Your task to perform on an android device: set default search engine in the chrome app Image 0: 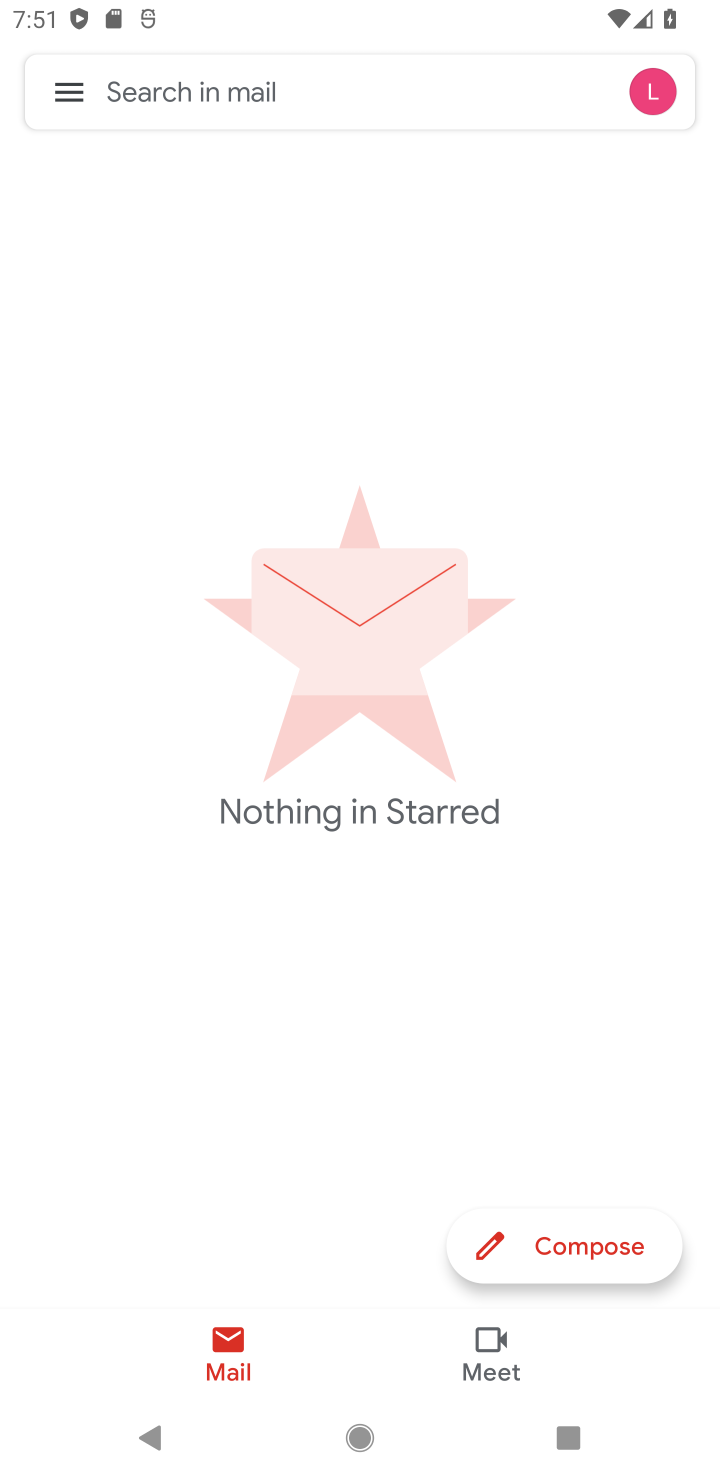
Step 0: press home button
Your task to perform on an android device: set default search engine in the chrome app Image 1: 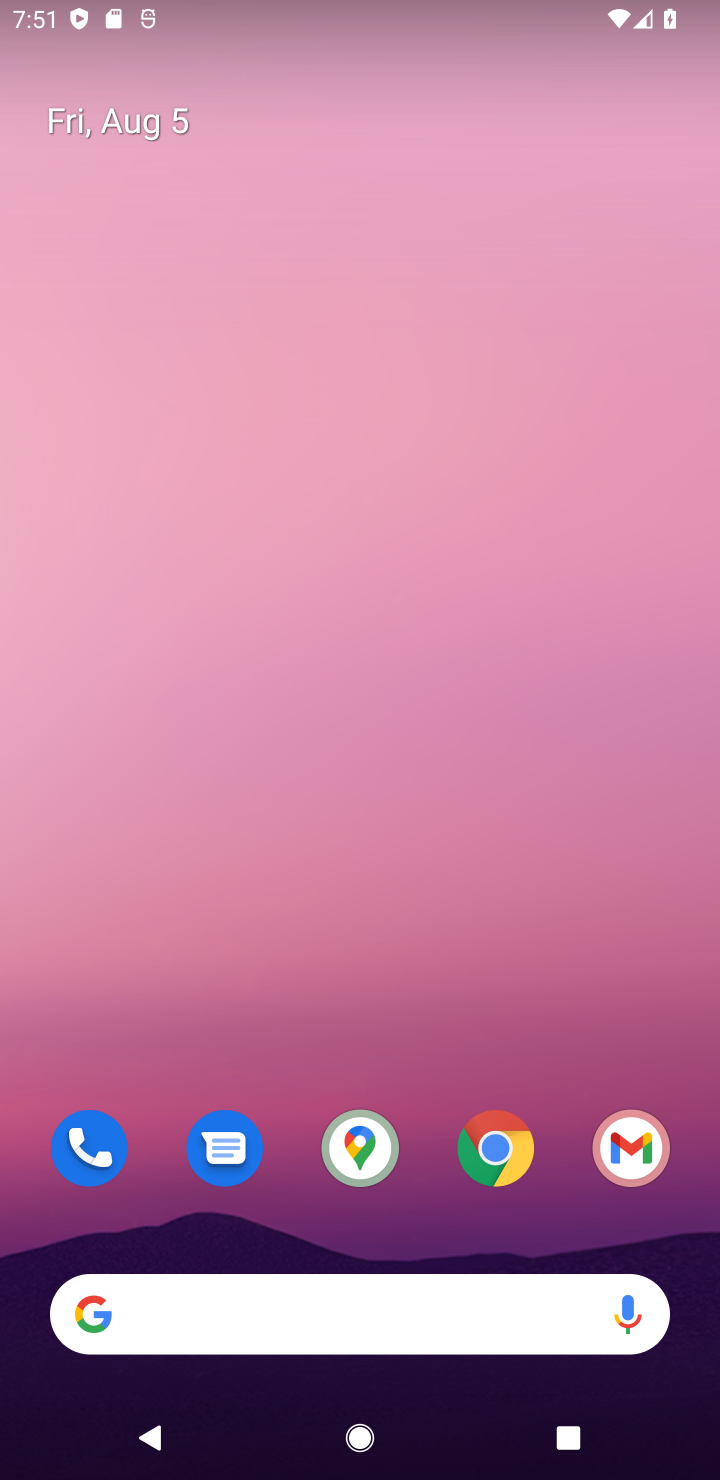
Step 1: click (528, 1138)
Your task to perform on an android device: set default search engine in the chrome app Image 2: 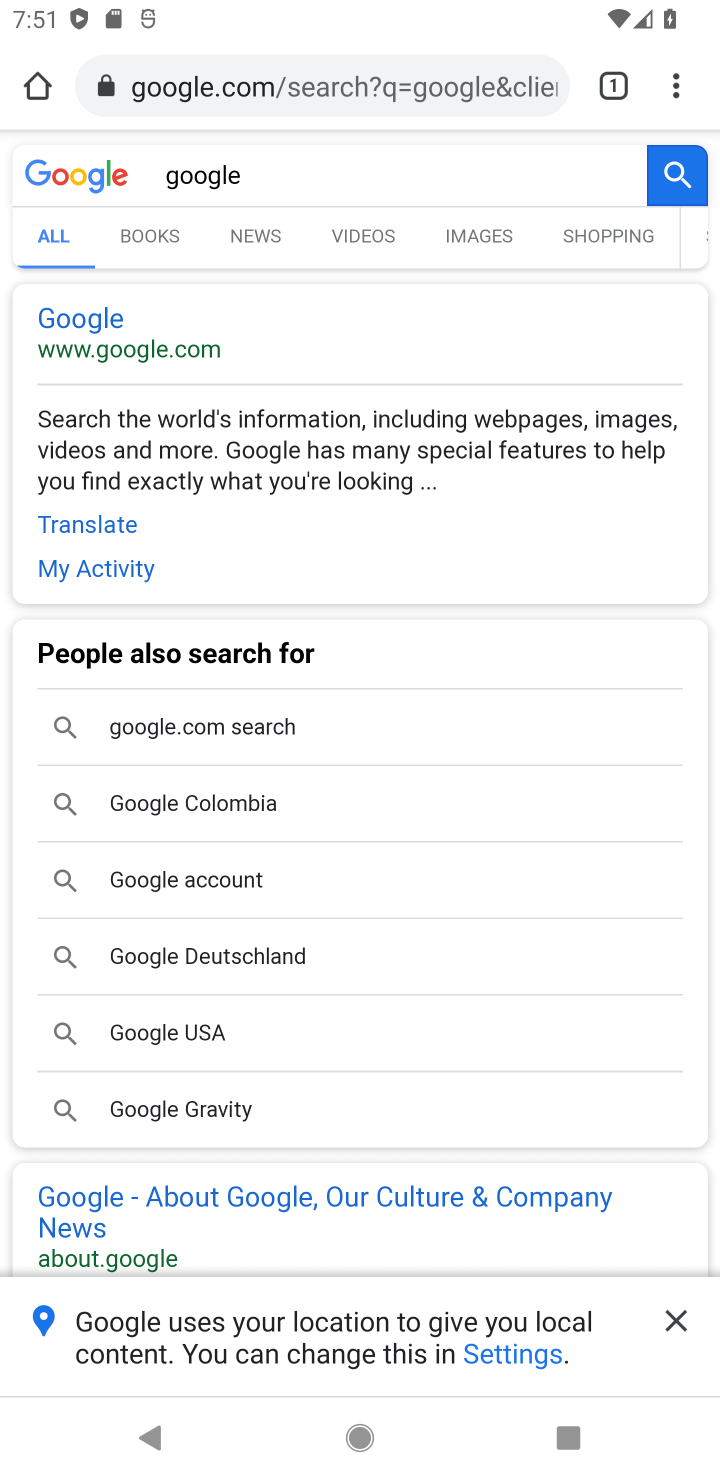
Step 2: click (691, 68)
Your task to perform on an android device: set default search engine in the chrome app Image 3: 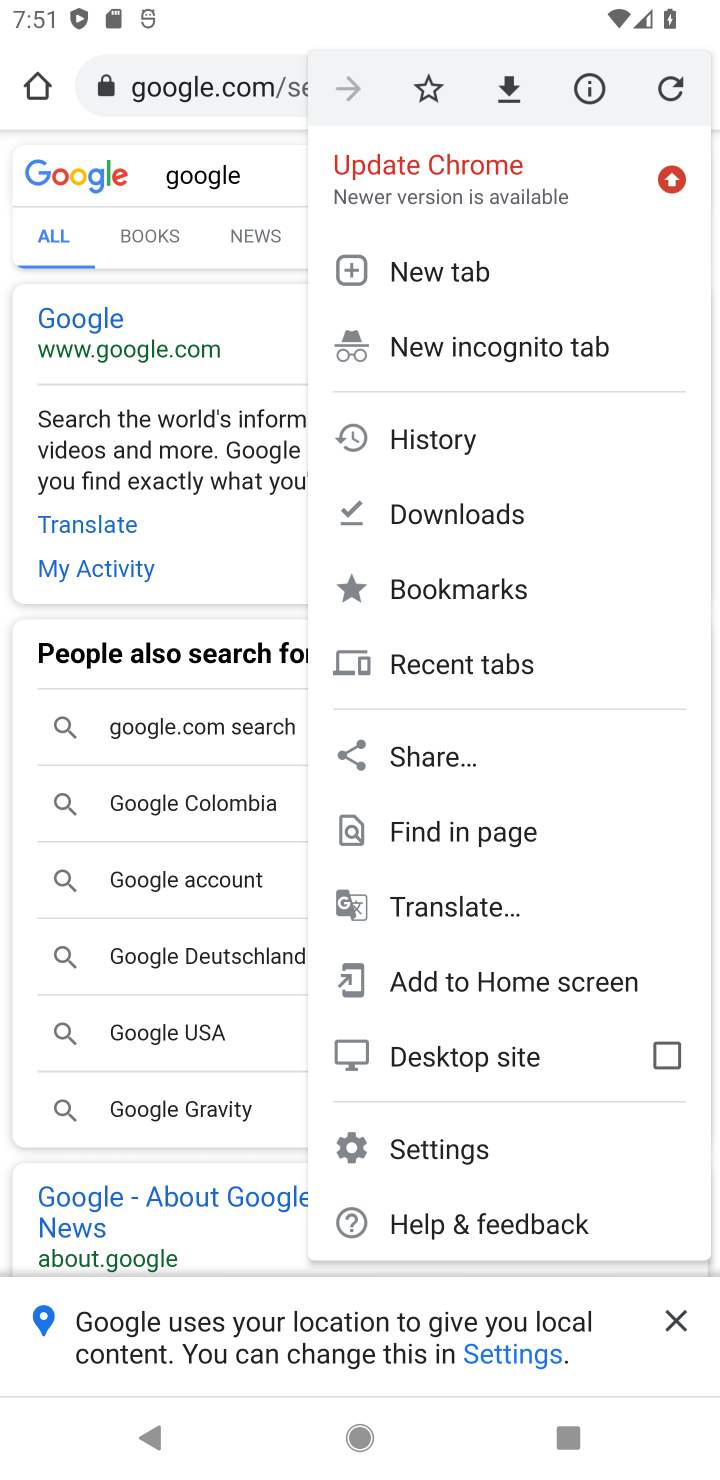
Step 3: click (549, 1116)
Your task to perform on an android device: set default search engine in the chrome app Image 4: 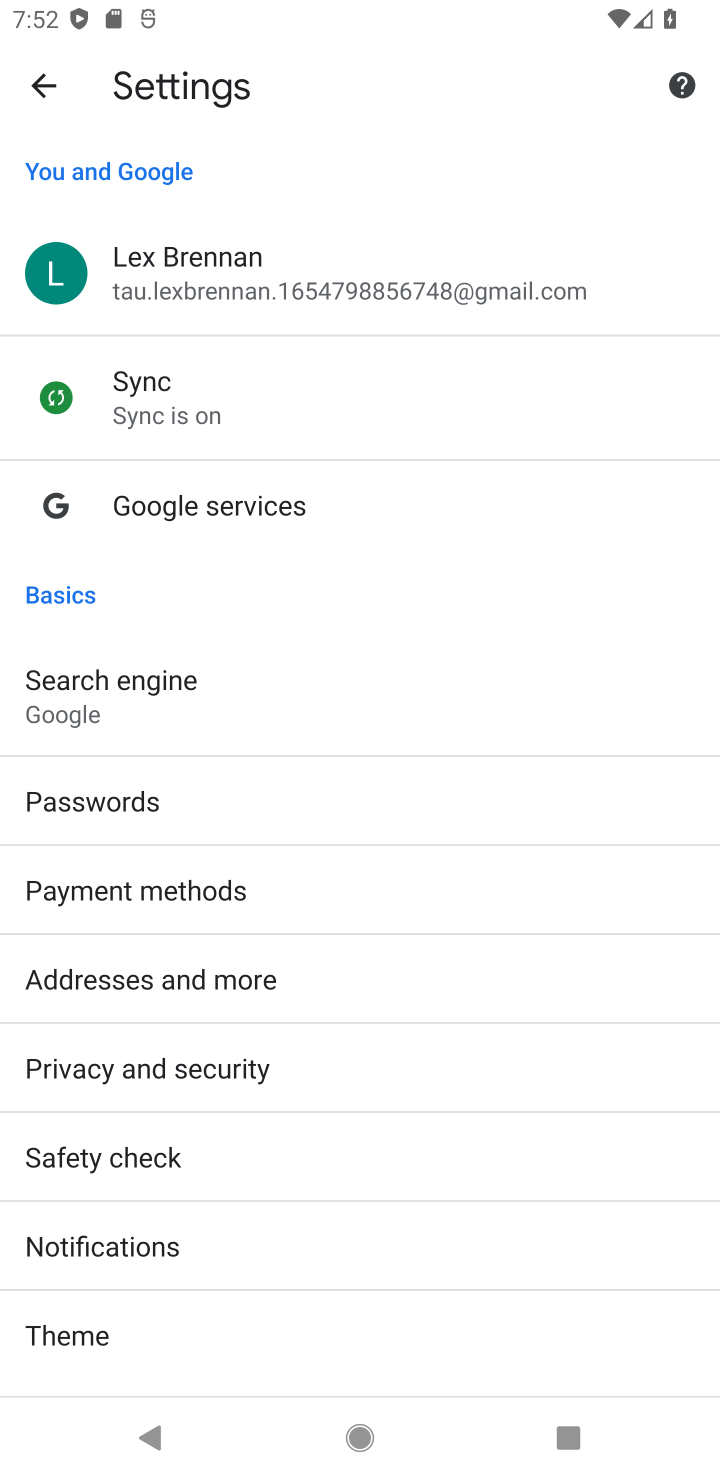
Step 4: click (232, 716)
Your task to perform on an android device: set default search engine in the chrome app Image 5: 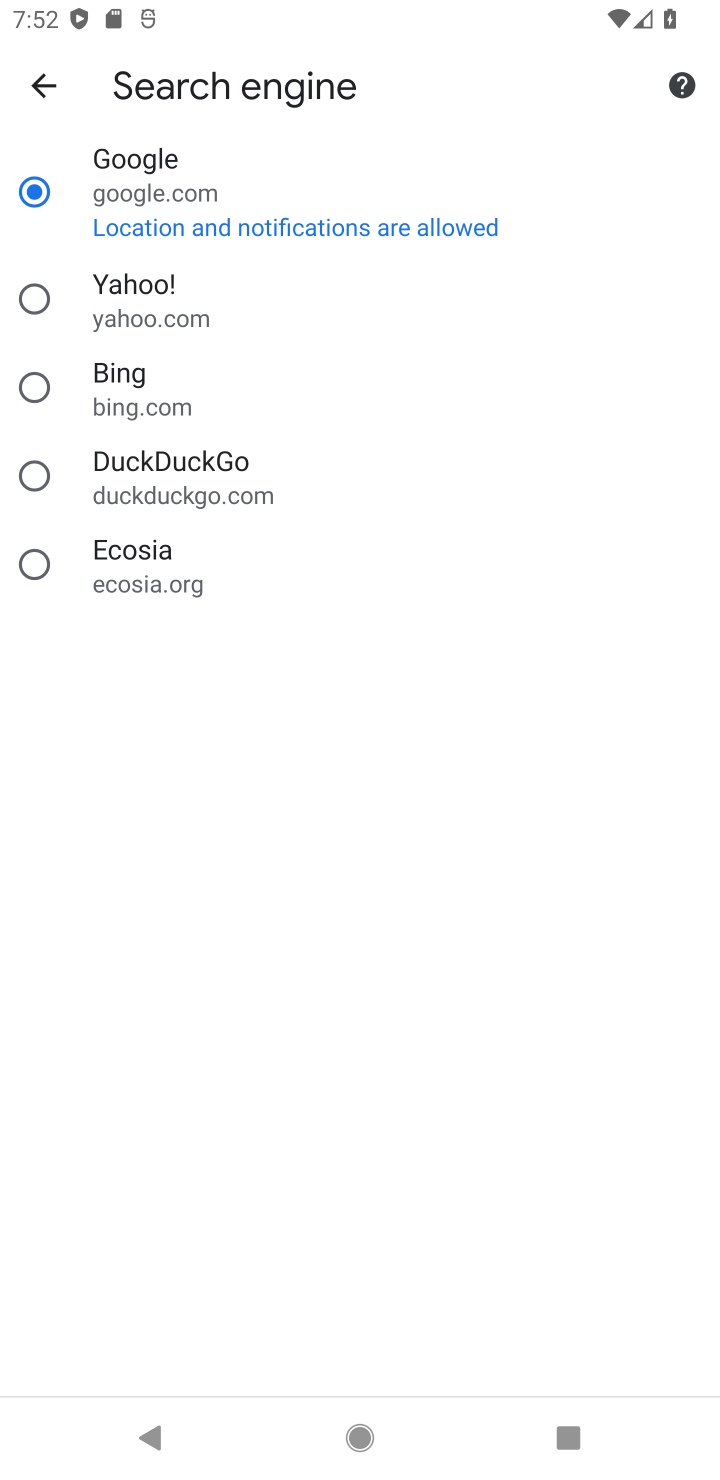
Step 5: click (168, 535)
Your task to perform on an android device: set default search engine in the chrome app Image 6: 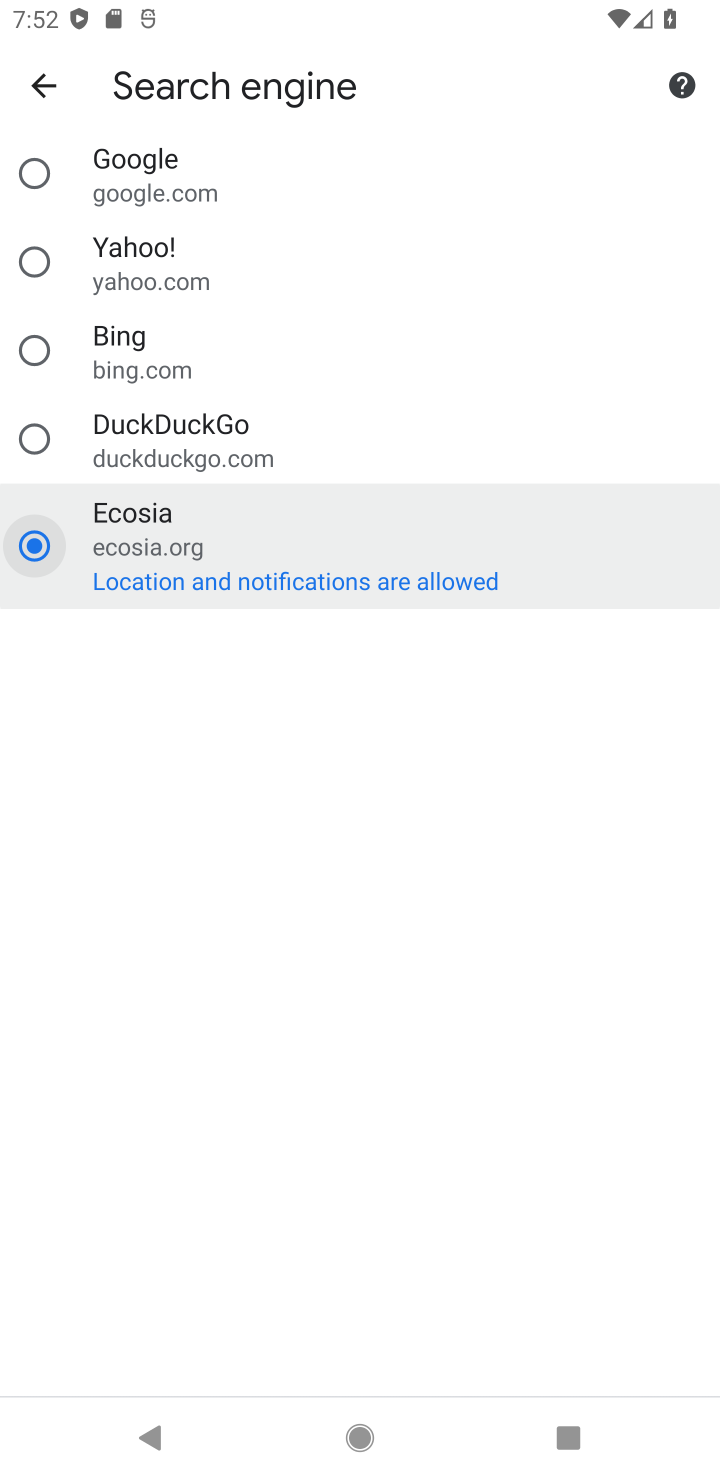
Step 6: task complete